Your task to perform on an android device: Turn off the flashlight Image 0: 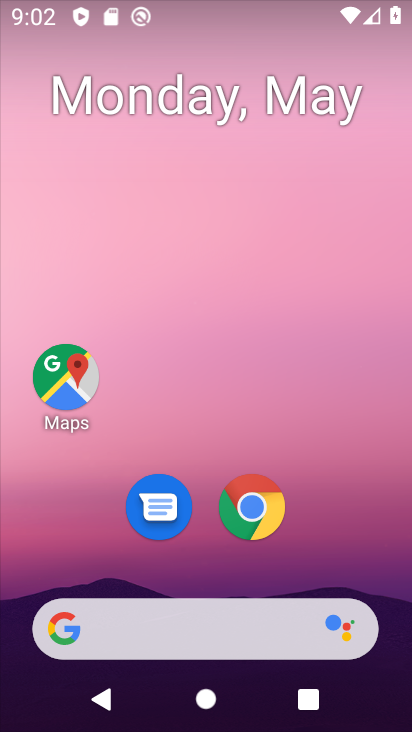
Step 0: drag from (208, 615) to (233, 281)
Your task to perform on an android device: Turn off the flashlight Image 1: 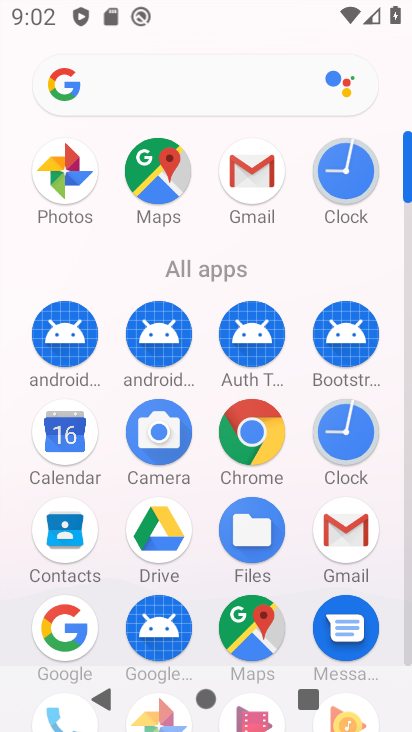
Step 1: drag from (297, 611) to (292, 415)
Your task to perform on an android device: Turn off the flashlight Image 2: 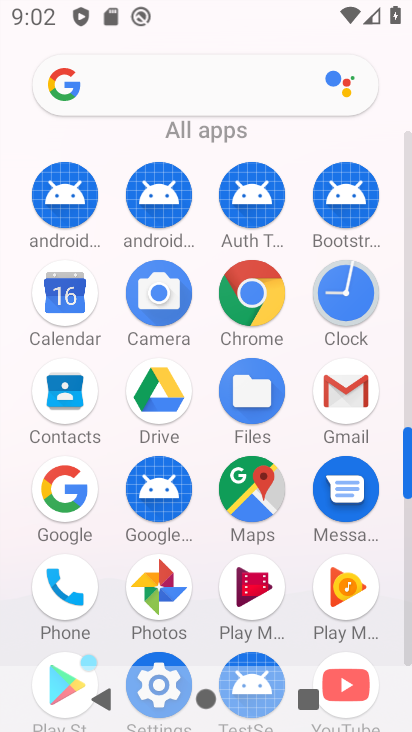
Step 2: click (156, 654)
Your task to perform on an android device: Turn off the flashlight Image 3: 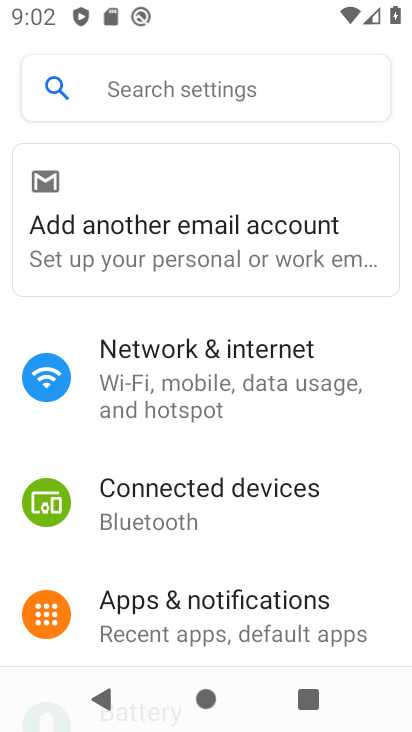
Step 3: task complete